Your task to perform on an android device: Is it going to rain tomorrow? Image 0: 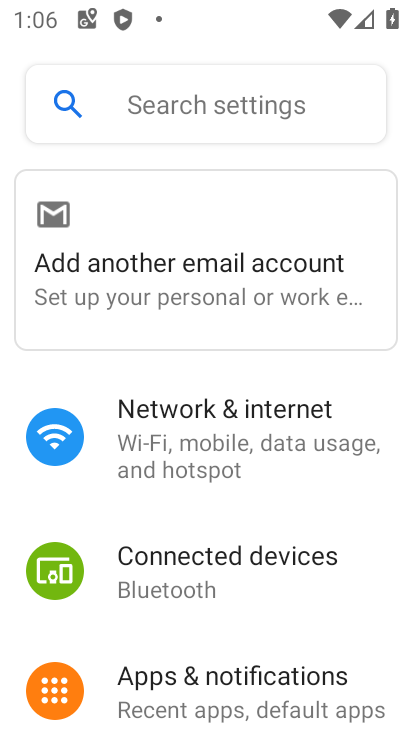
Step 0: press home button
Your task to perform on an android device: Is it going to rain tomorrow? Image 1: 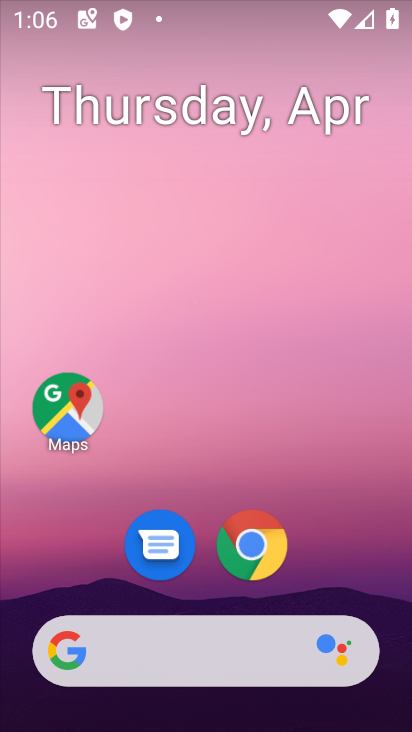
Step 1: drag from (195, 613) to (294, 57)
Your task to perform on an android device: Is it going to rain tomorrow? Image 2: 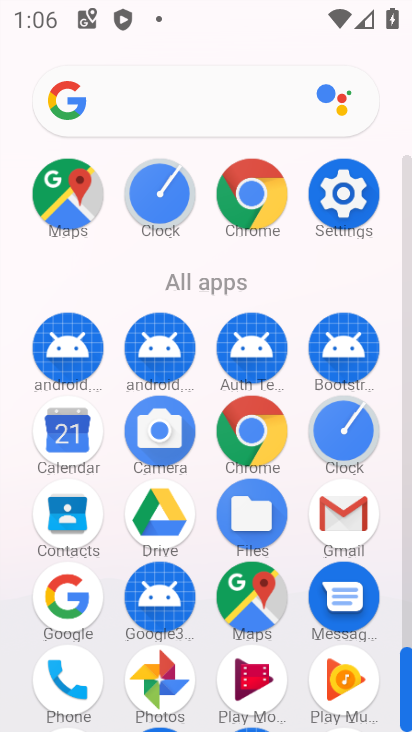
Step 2: click (73, 600)
Your task to perform on an android device: Is it going to rain tomorrow? Image 3: 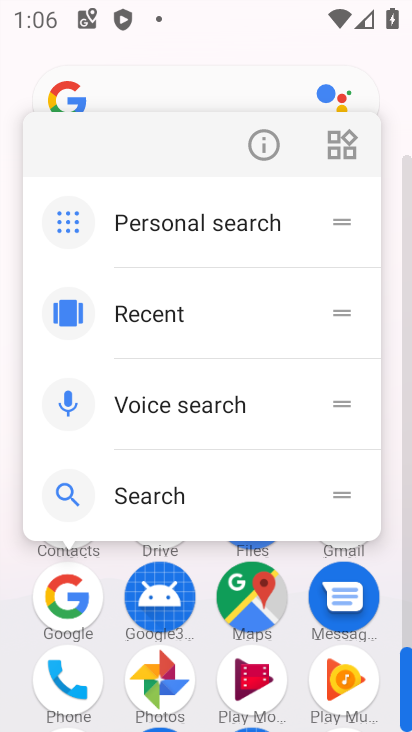
Step 3: click (74, 608)
Your task to perform on an android device: Is it going to rain tomorrow? Image 4: 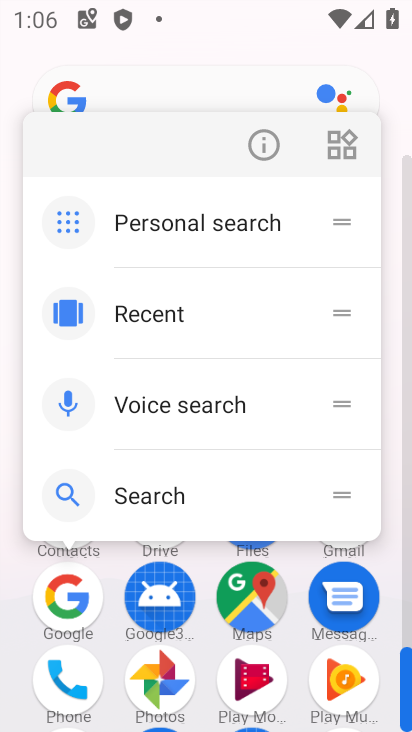
Step 4: click (73, 603)
Your task to perform on an android device: Is it going to rain tomorrow? Image 5: 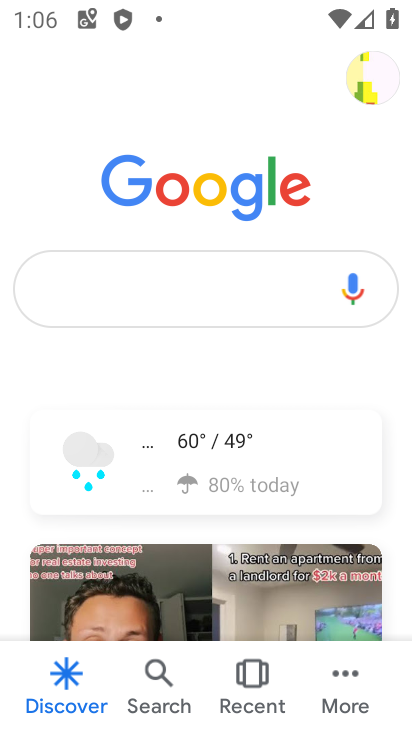
Step 5: click (217, 443)
Your task to perform on an android device: Is it going to rain tomorrow? Image 6: 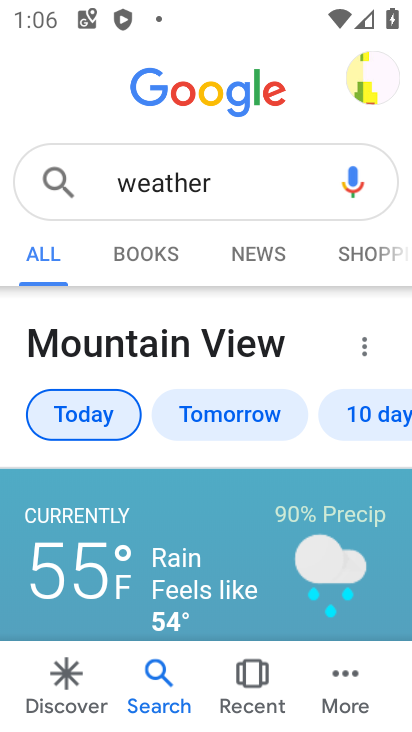
Step 6: task complete